Your task to perform on an android device: turn on bluetooth scan Image 0: 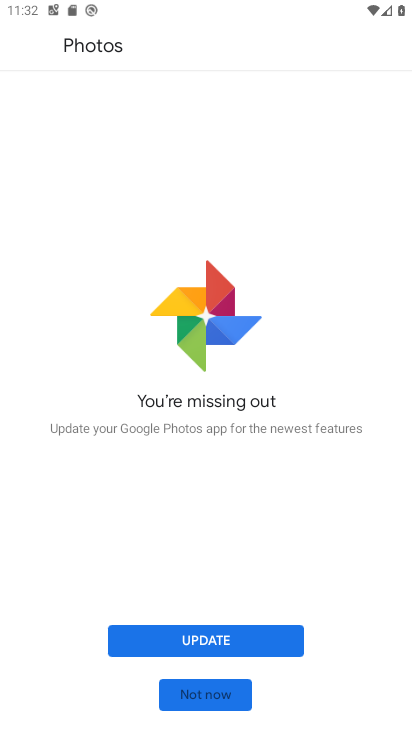
Step 0: press home button
Your task to perform on an android device: turn on bluetooth scan Image 1: 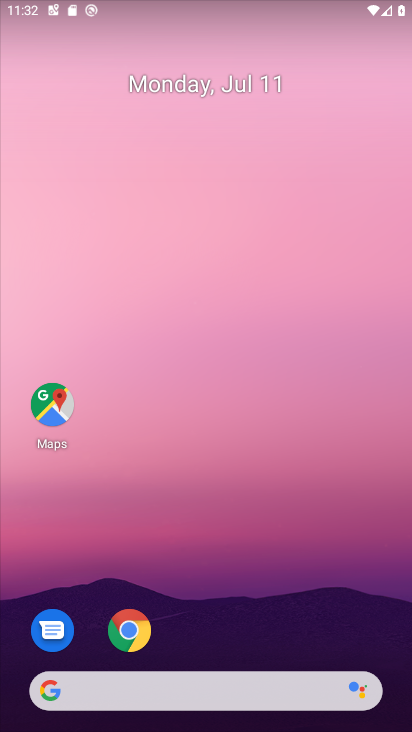
Step 1: drag from (168, 444) to (178, 5)
Your task to perform on an android device: turn on bluetooth scan Image 2: 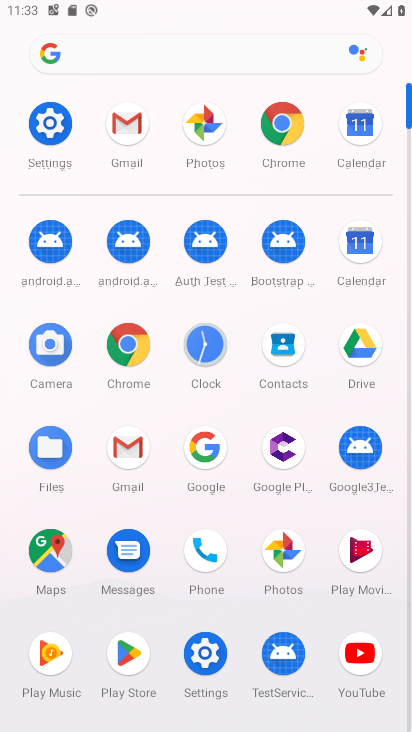
Step 2: click (207, 661)
Your task to perform on an android device: turn on bluetooth scan Image 3: 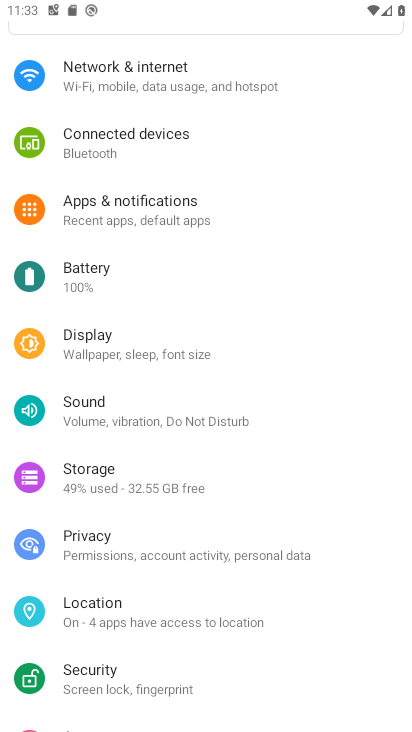
Step 3: click (116, 615)
Your task to perform on an android device: turn on bluetooth scan Image 4: 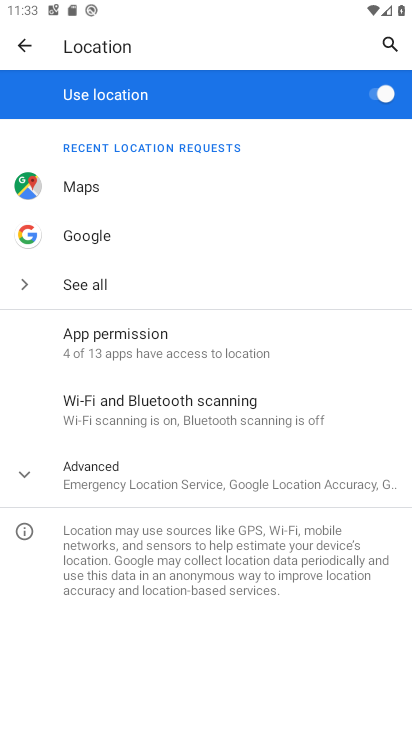
Step 4: click (148, 470)
Your task to perform on an android device: turn on bluetooth scan Image 5: 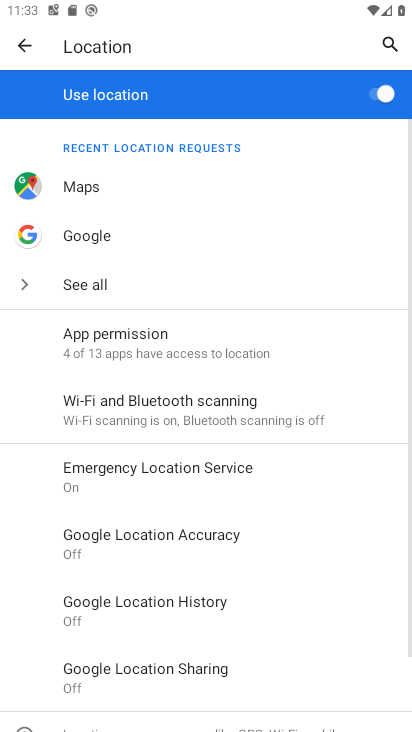
Step 5: click (153, 414)
Your task to perform on an android device: turn on bluetooth scan Image 6: 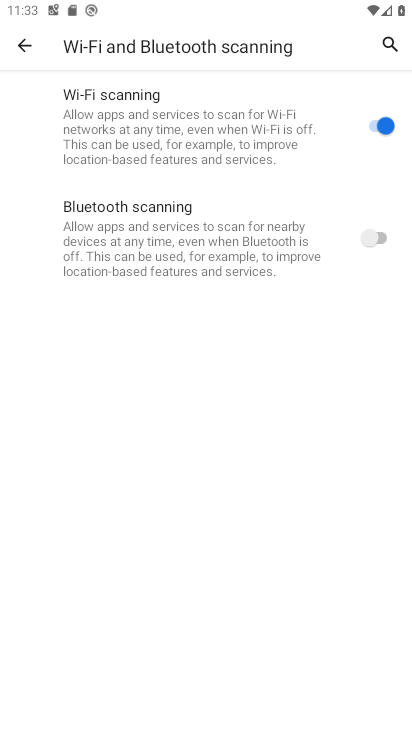
Step 6: click (388, 236)
Your task to perform on an android device: turn on bluetooth scan Image 7: 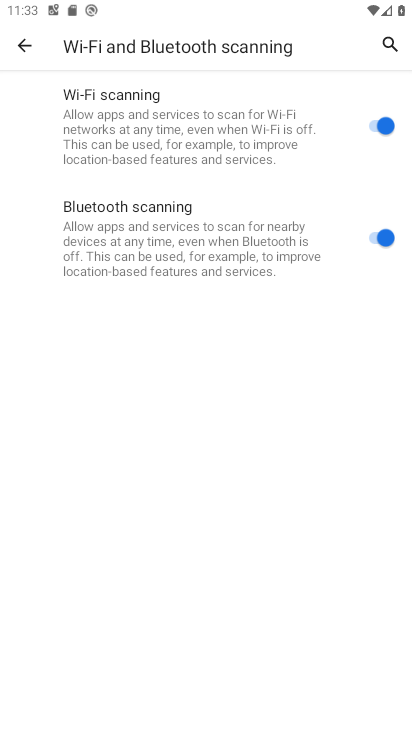
Step 7: task complete